Your task to perform on an android device: toggle wifi Image 0: 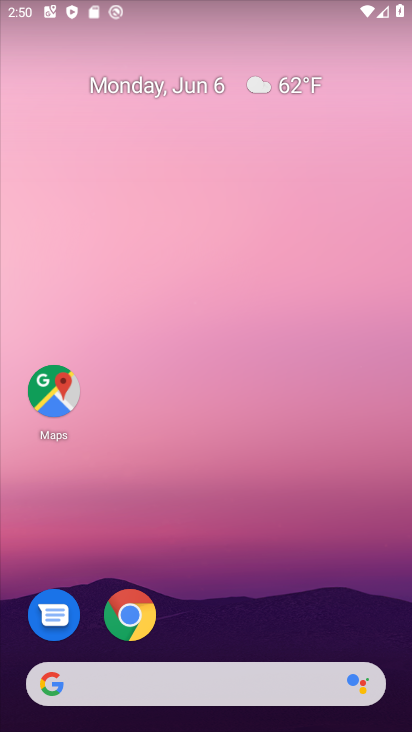
Step 0: drag from (325, 684) to (372, 1)
Your task to perform on an android device: toggle wifi Image 1: 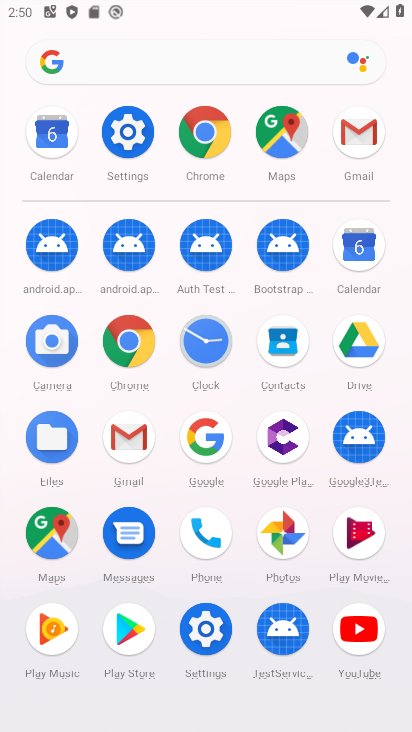
Step 1: click (117, 125)
Your task to perform on an android device: toggle wifi Image 2: 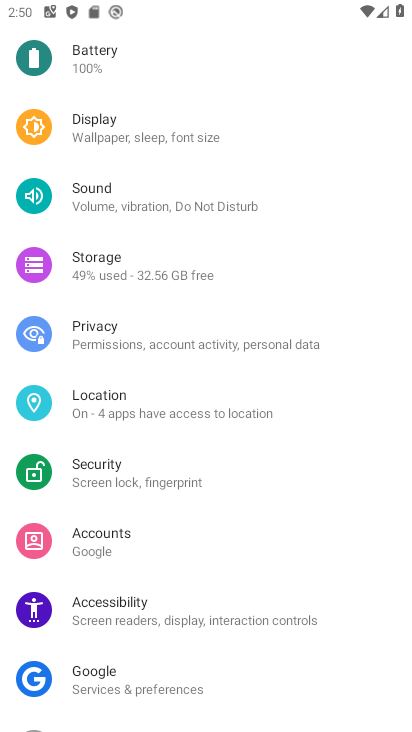
Step 2: drag from (217, 183) to (179, 615)
Your task to perform on an android device: toggle wifi Image 3: 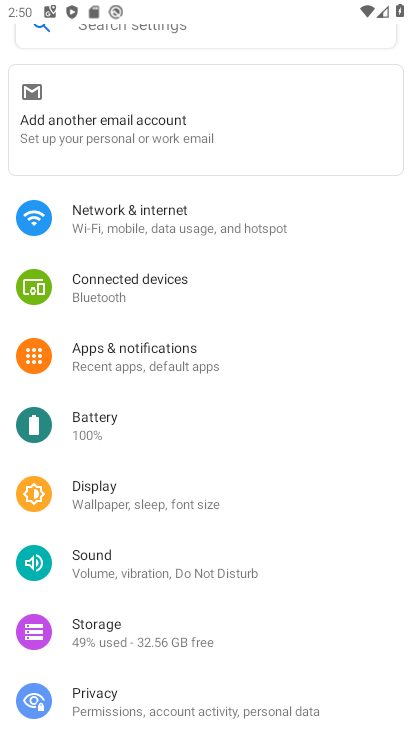
Step 3: click (201, 256)
Your task to perform on an android device: toggle wifi Image 4: 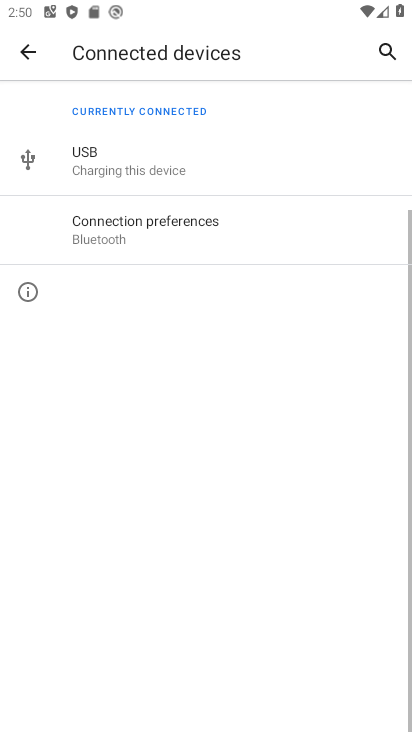
Step 4: press back button
Your task to perform on an android device: toggle wifi Image 5: 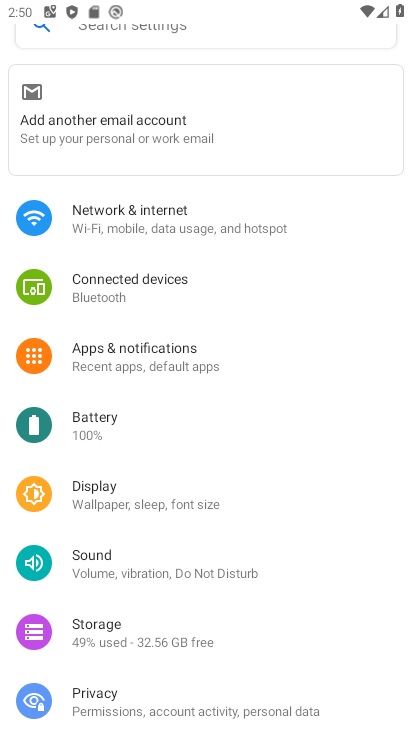
Step 5: click (179, 220)
Your task to perform on an android device: toggle wifi Image 6: 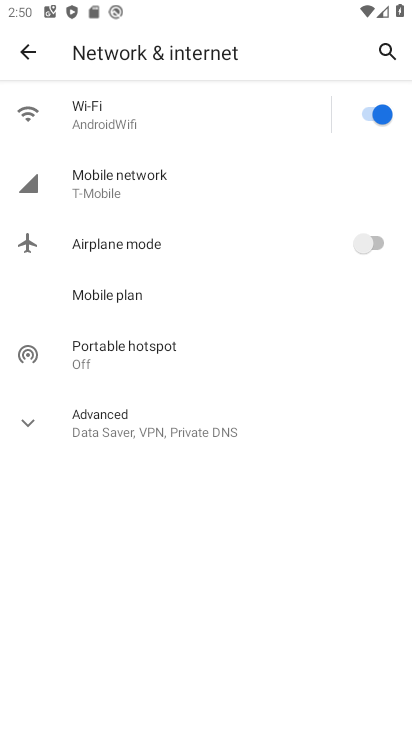
Step 6: click (117, 105)
Your task to perform on an android device: toggle wifi Image 7: 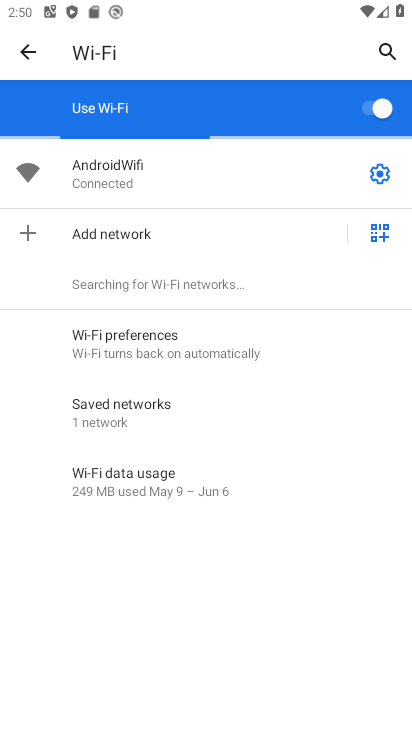
Step 7: click (362, 110)
Your task to perform on an android device: toggle wifi Image 8: 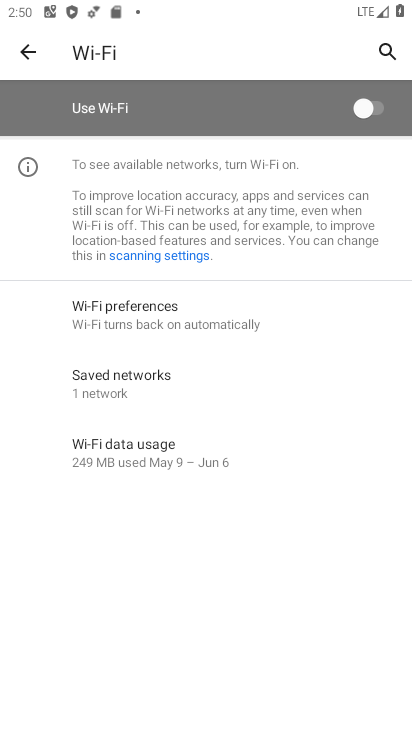
Step 8: task complete